Your task to perform on an android device: Open the calendar app, open the side menu, and click the "Day" option Image 0: 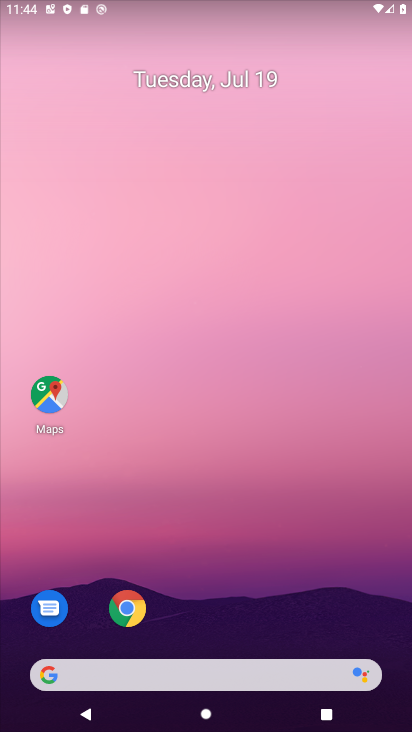
Step 0: drag from (229, 603) to (296, 62)
Your task to perform on an android device: Open the calendar app, open the side menu, and click the "Day" option Image 1: 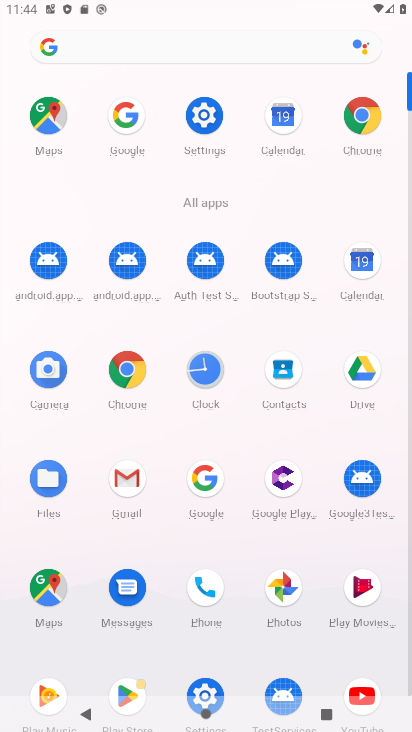
Step 1: click (363, 257)
Your task to perform on an android device: Open the calendar app, open the side menu, and click the "Day" option Image 2: 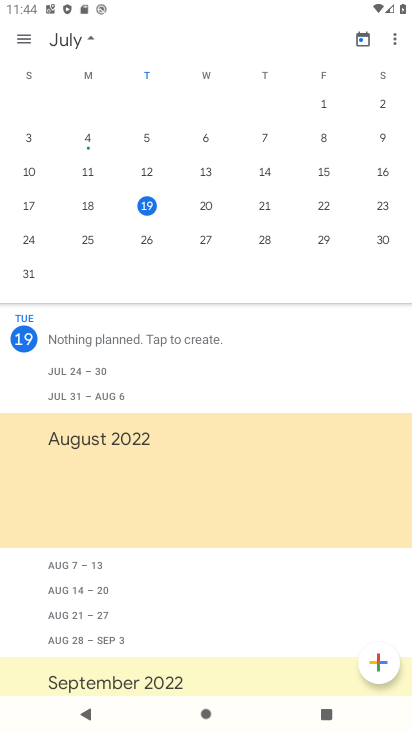
Step 2: click (25, 38)
Your task to perform on an android device: Open the calendar app, open the side menu, and click the "Day" option Image 3: 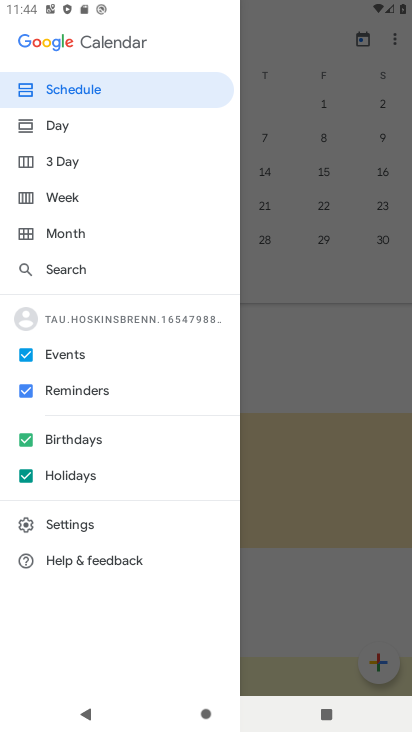
Step 3: click (67, 121)
Your task to perform on an android device: Open the calendar app, open the side menu, and click the "Day" option Image 4: 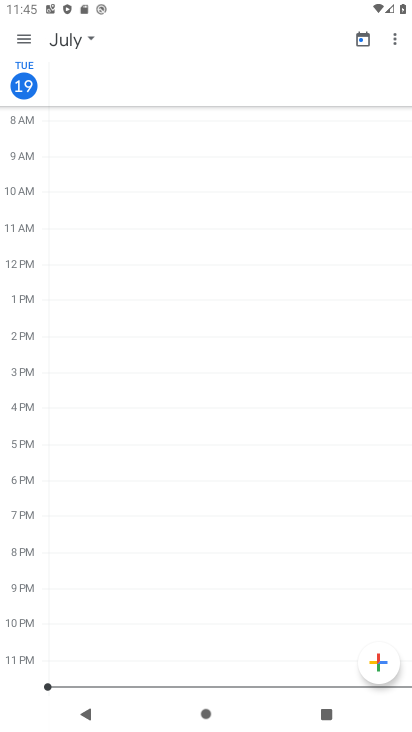
Step 4: task complete